Your task to perform on an android device: see tabs open on other devices in the chrome app Image 0: 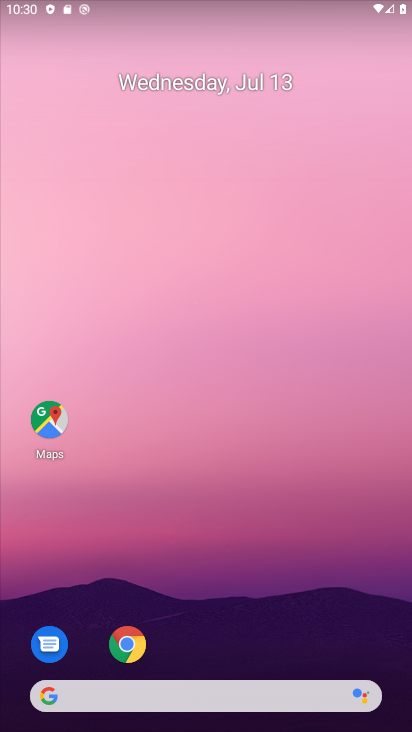
Step 0: click (134, 639)
Your task to perform on an android device: see tabs open on other devices in the chrome app Image 1: 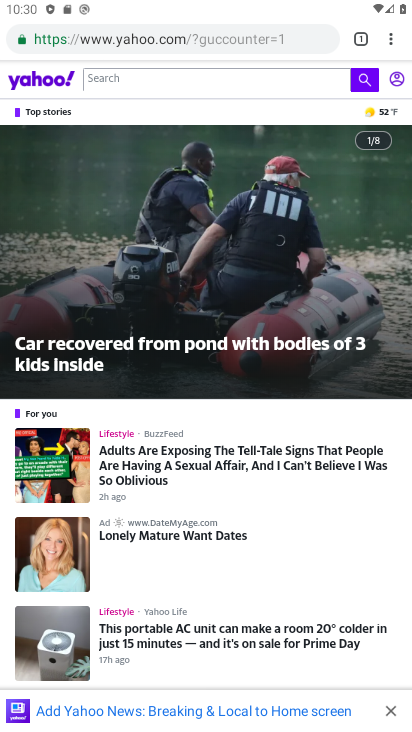
Step 1: click (389, 38)
Your task to perform on an android device: see tabs open on other devices in the chrome app Image 2: 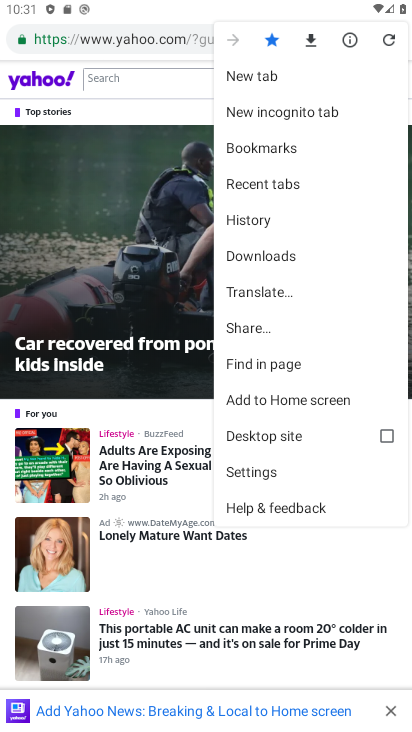
Step 2: click (248, 185)
Your task to perform on an android device: see tabs open on other devices in the chrome app Image 3: 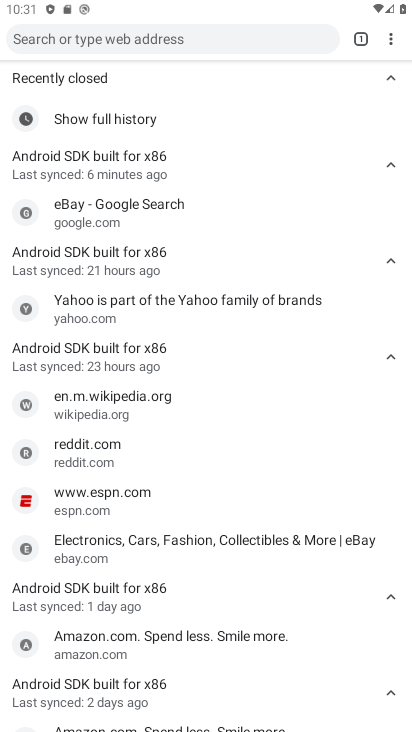
Step 3: task complete